Your task to perform on an android device: Open internet settings Image 0: 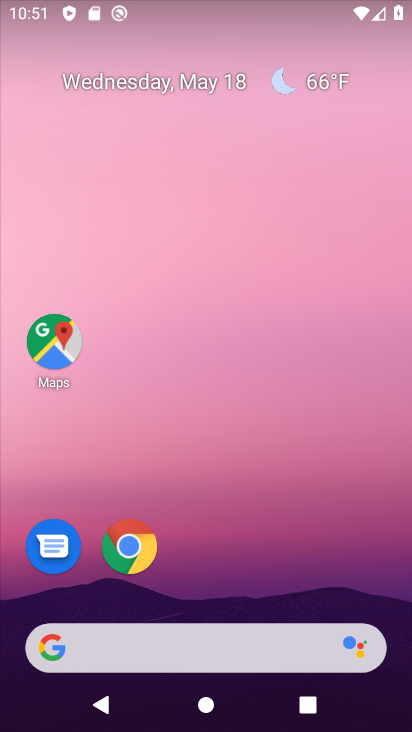
Step 0: drag from (229, 723) to (263, 63)
Your task to perform on an android device: Open internet settings Image 1: 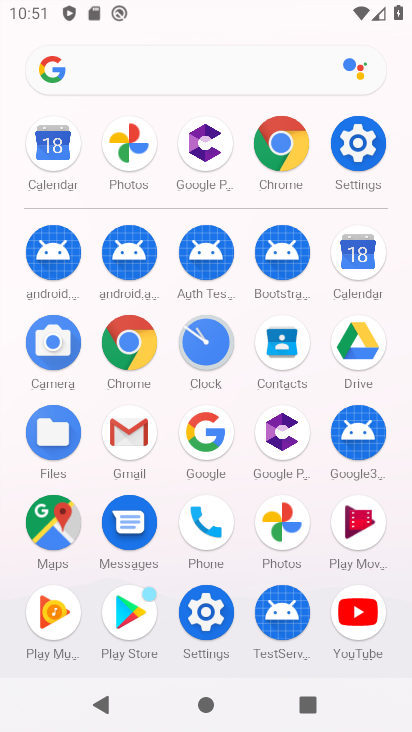
Step 1: click (366, 143)
Your task to perform on an android device: Open internet settings Image 2: 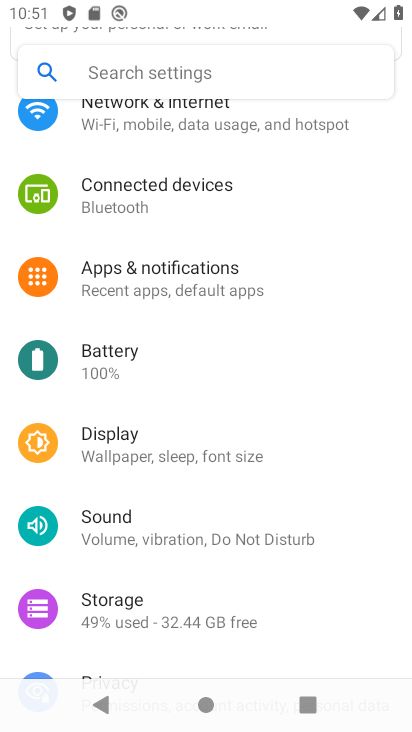
Step 2: drag from (195, 135) to (206, 402)
Your task to perform on an android device: Open internet settings Image 3: 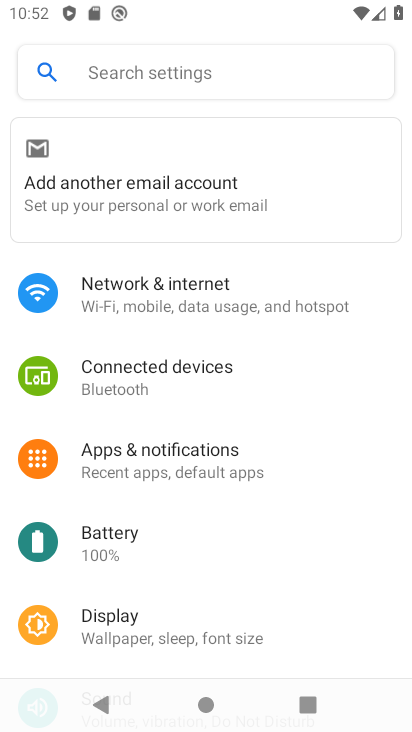
Step 3: click (193, 292)
Your task to perform on an android device: Open internet settings Image 4: 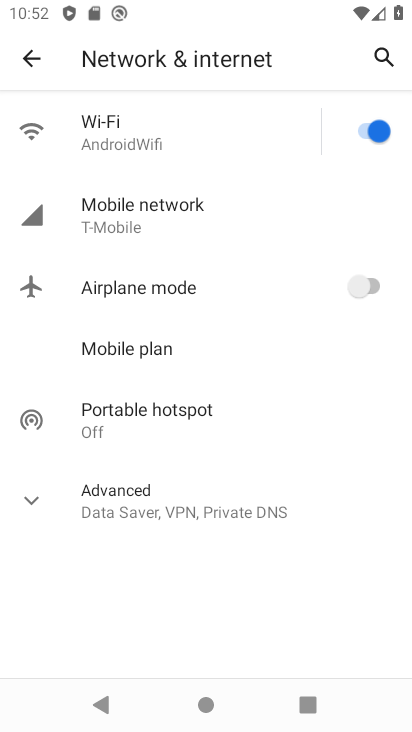
Step 4: task complete